Your task to perform on an android device: install app "Clock" Image 0: 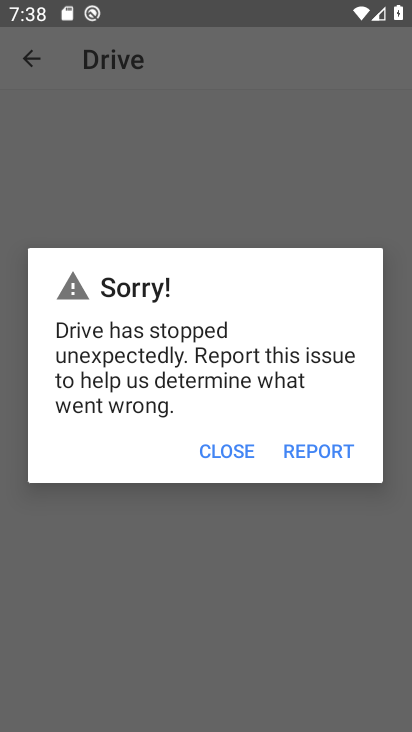
Step 0: press home button
Your task to perform on an android device: install app "Clock" Image 1: 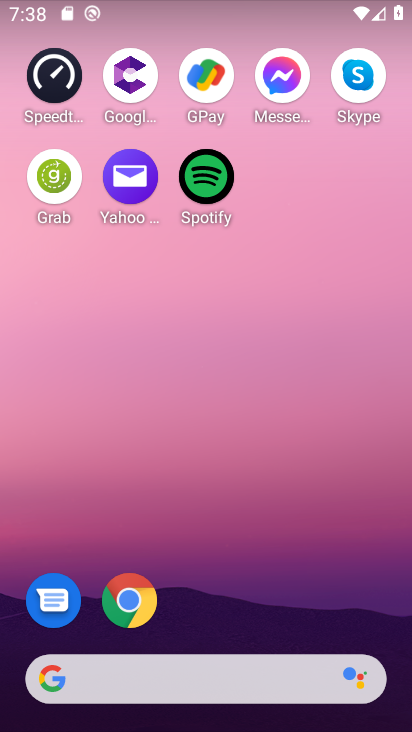
Step 1: drag from (210, 605) to (174, 50)
Your task to perform on an android device: install app "Clock" Image 2: 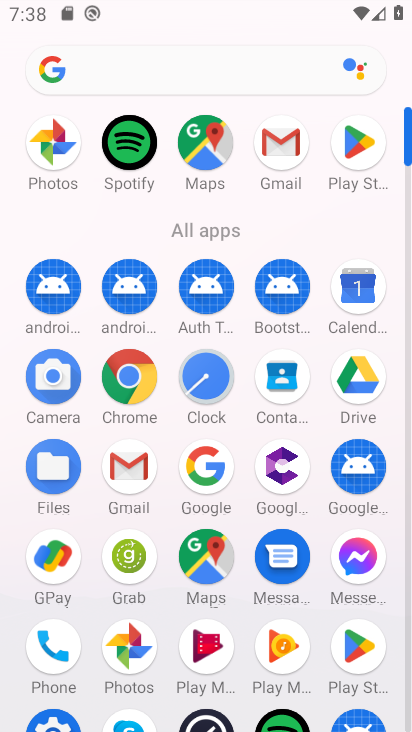
Step 2: click (354, 161)
Your task to perform on an android device: install app "Clock" Image 3: 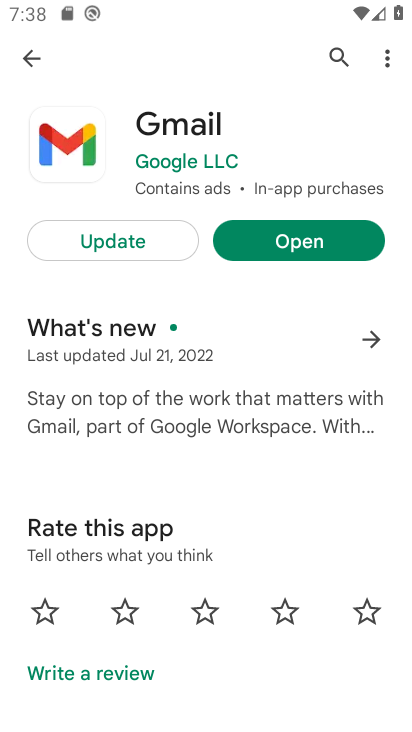
Step 3: click (32, 48)
Your task to perform on an android device: install app "Clock" Image 4: 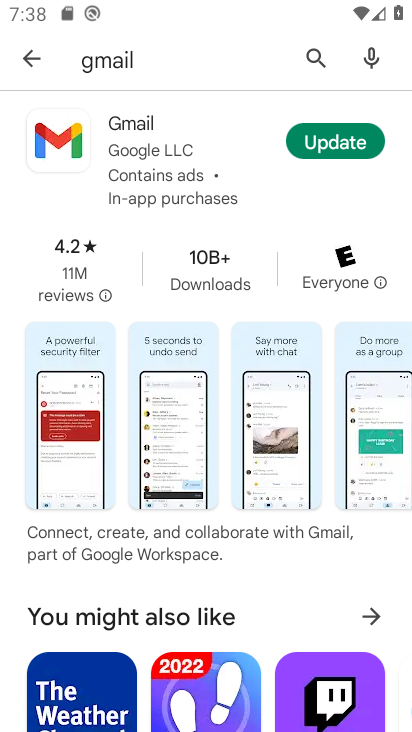
Step 4: click (33, 65)
Your task to perform on an android device: install app "Clock" Image 5: 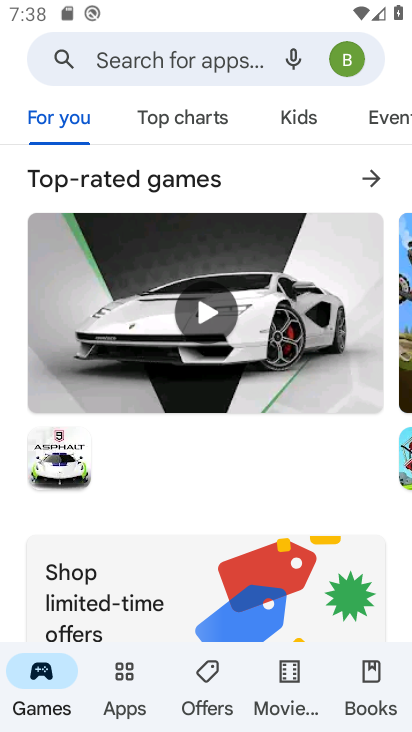
Step 5: click (131, 63)
Your task to perform on an android device: install app "Clock" Image 6: 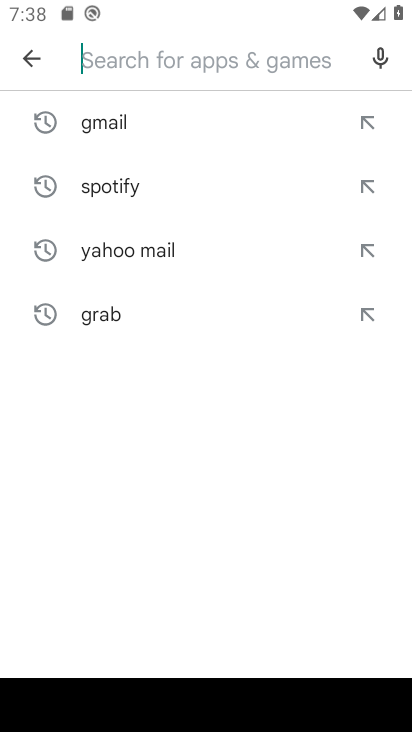
Step 6: type "Clock"
Your task to perform on an android device: install app "Clock" Image 7: 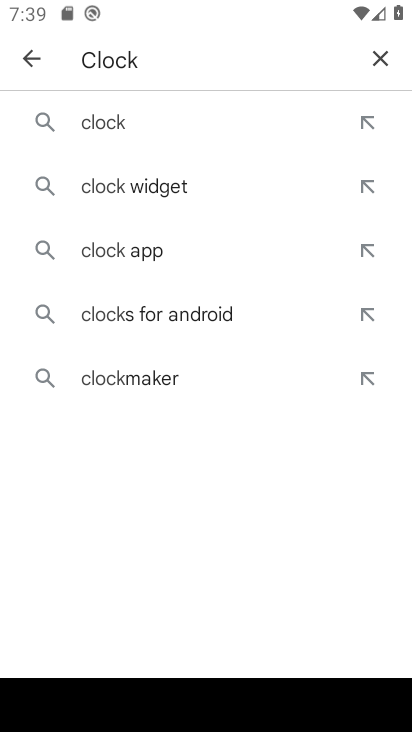
Step 7: click (99, 128)
Your task to perform on an android device: install app "Clock" Image 8: 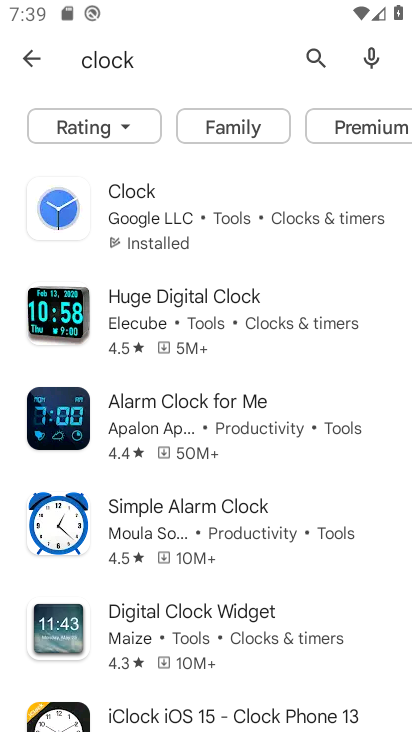
Step 8: task complete